Your task to perform on an android device: Search for seafood restaurants on Google Maps Image 0: 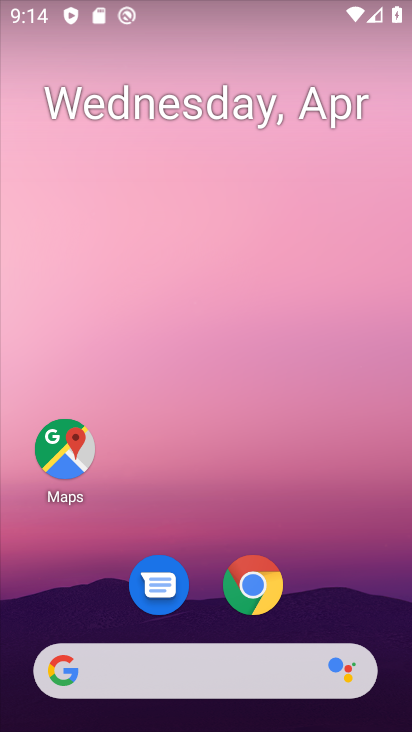
Step 0: click (53, 445)
Your task to perform on an android device: Search for seafood restaurants on Google Maps Image 1: 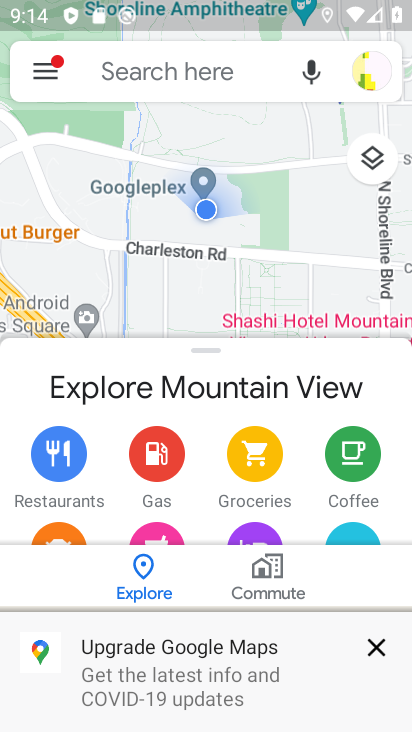
Step 1: click (191, 61)
Your task to perform on an android device: Search for seafood restaurants on Google Maps Image 2: 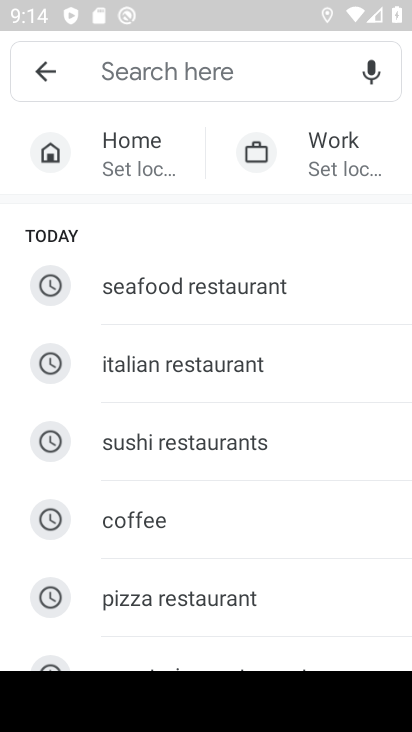
Step 2: click (203, 288)
Your task to perform on an android device: Search for seafood restaurants on Google Maps Image 3: 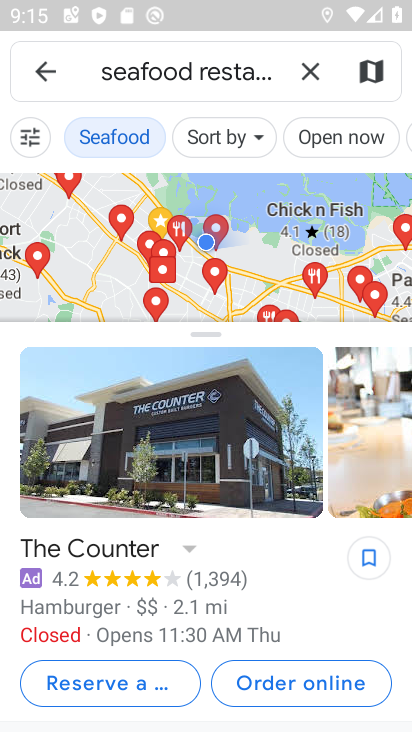
Step 3: task complete